Your task to perform on an android device: Open settings on Google Maps Image 0: 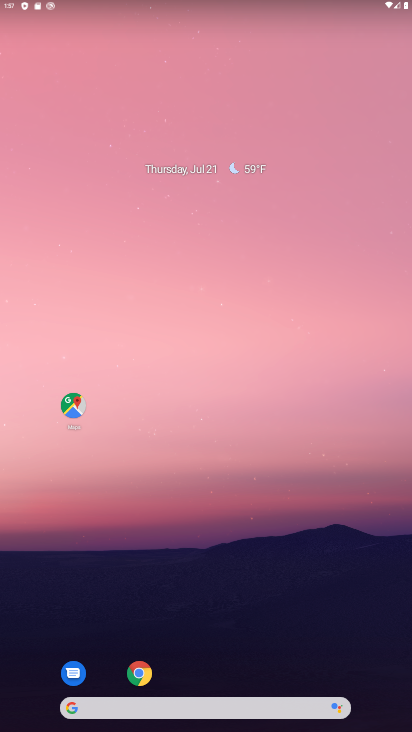
Step 0: click (73, 404)
Your task to perform on an android device: Open settings on Google Maps Image 1: 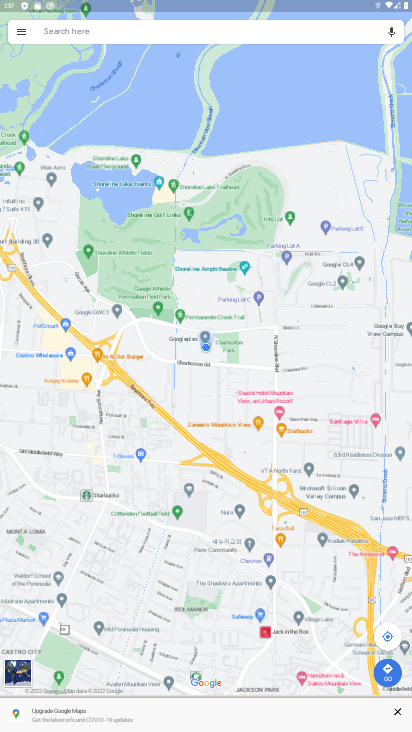
Step 1: click (21, 32)
Your task to perform on an android device: Open settings on Google Maps Image 2: 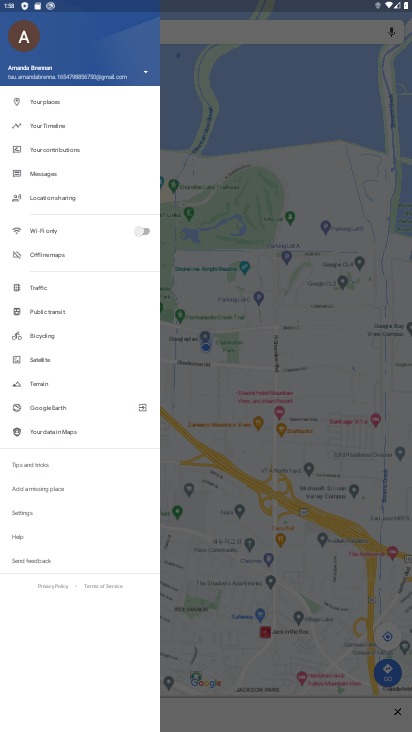
Step 2: click (25, 513)
Your task to perform on an android device: Open settings on Google Maps Image 3: 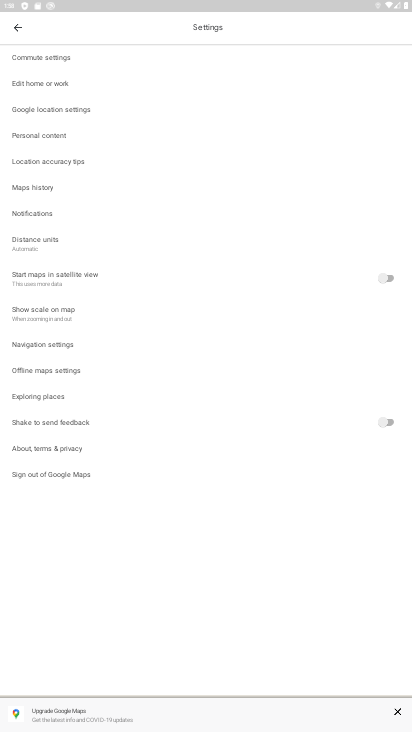
Step 3: task complete